Your task to perform on an android device: clear history in the chrome app Image 0: 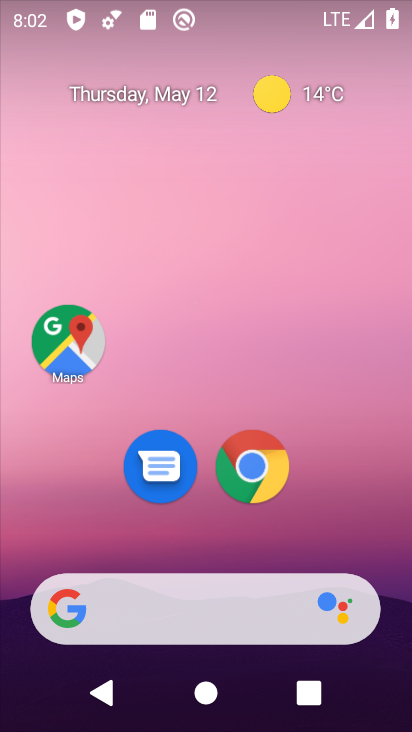
Step 0: press home button
Your task to perform on an android device: clear history in the chrome app Image 1: 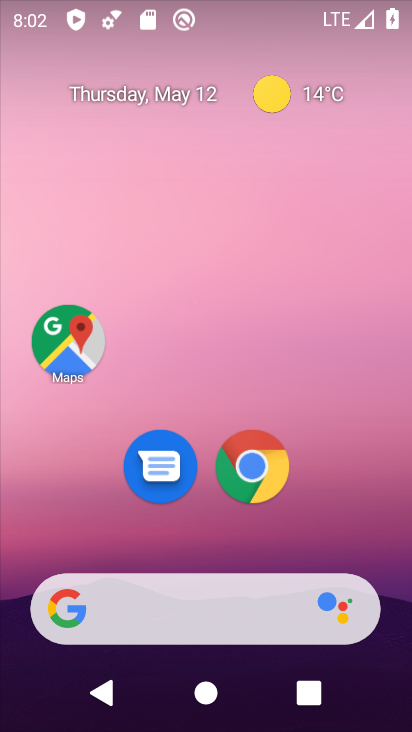
Step 1: press home button
Your task to perform on an android device: clear history in the chrome app Image 2: 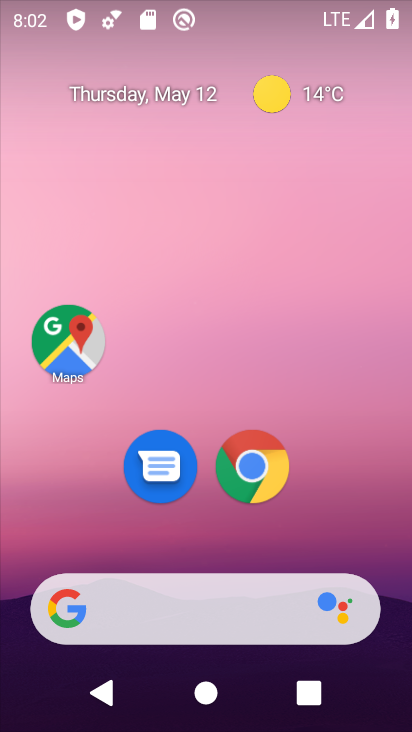
Step 2: click (249, 473)
Your task to perform on an android device: clear history in the chrome app Image 3: 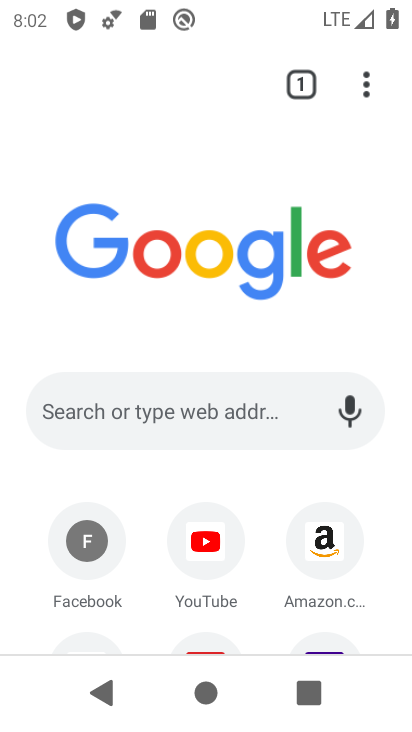
Step 3: click (362, 85)
Your task to perform on an android device: clear history in the chrome app Image 4: 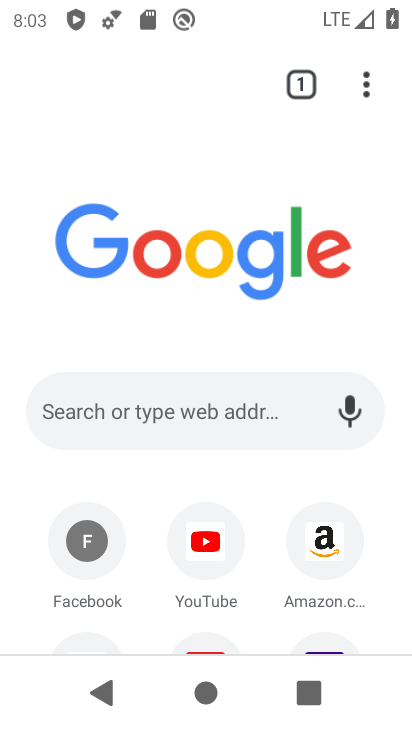
Step 4: click (365, 80)
Your task to perform on an android device: clear history in the chrome app Image 5: 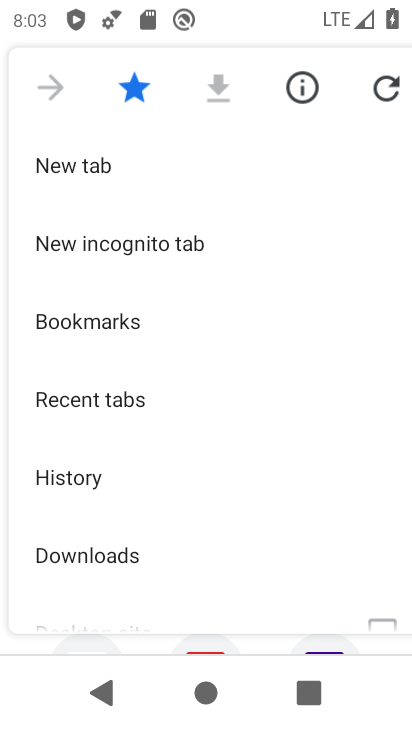
Step 5: click (109, 477)
Your task to perform on an android device: clear history in the chrome app Image 6: 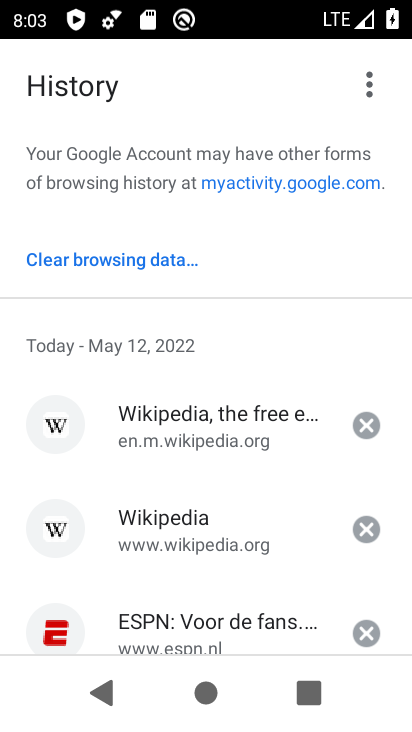
Step 6: click (172, 248)
Your task to perform on an android device: clear history in the chrome app Image 7: 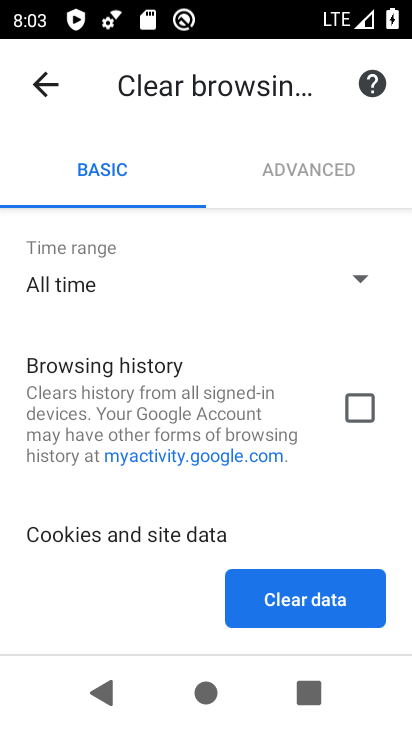
Step 7: click (352, 389)
Your task to perform on an android device: clear history in the chrome app Image 8: 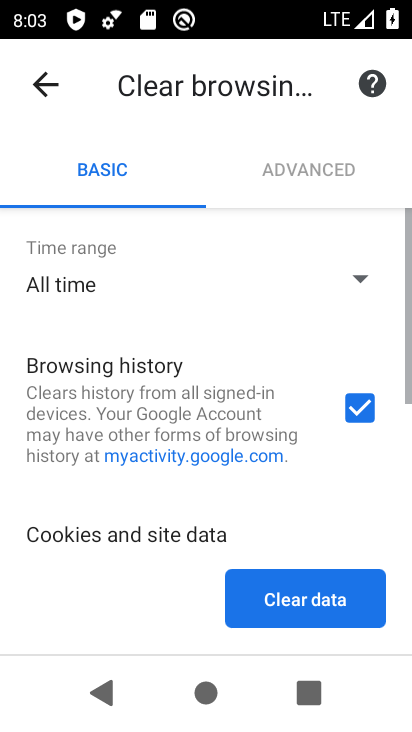
Step 8: drag from (228, 511) to (246, 169)
Your task to perform on an android device: clear history in the chrome app Image 9: 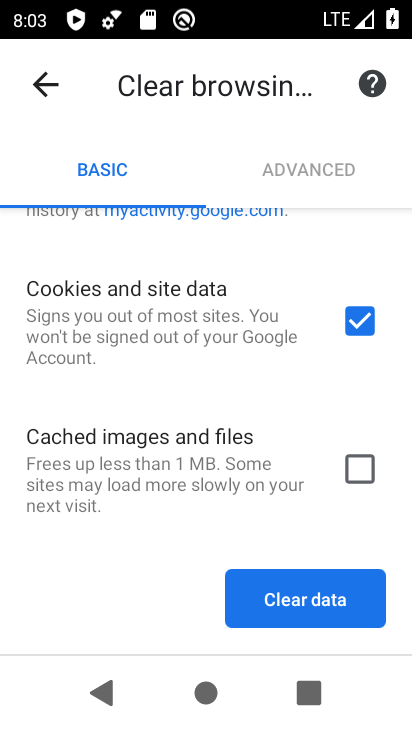
Step 9: click (352, 471)
Your task to perform on an android device: clear history in the chrome app Image 10: 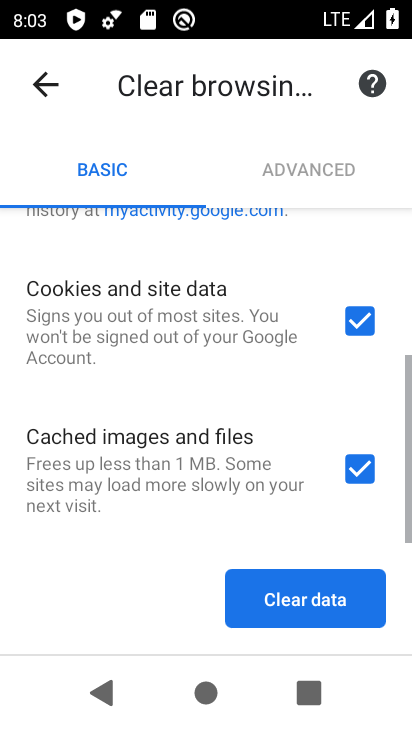
Step 10: click (317, 608)
Your task to perform on an android device: clear history in the chrome app Image 11: 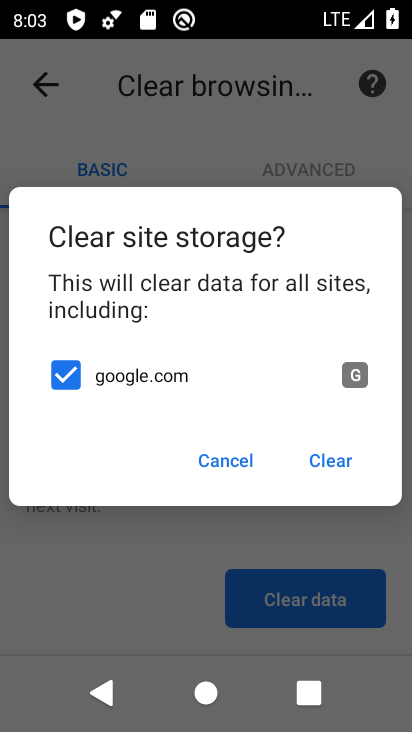
Step 11: click (331, 460)
Your task to perform on an android device: clear history in the chrome app Image 12: 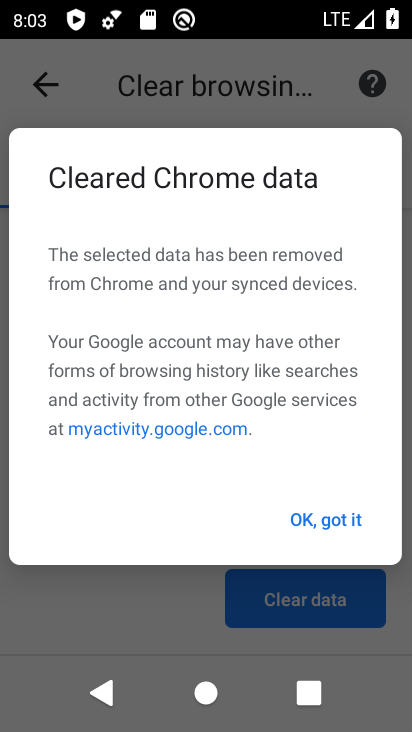
Step 12: click (328, 515)
Your task to perform on an android device: clear history in the chrome app Image 13: 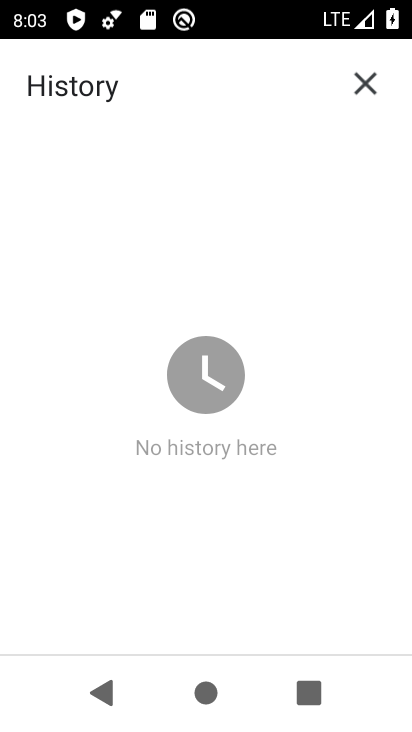
Step 13: task complete